Your task to perform on an android device: find which apps use the phone's location Image 0: 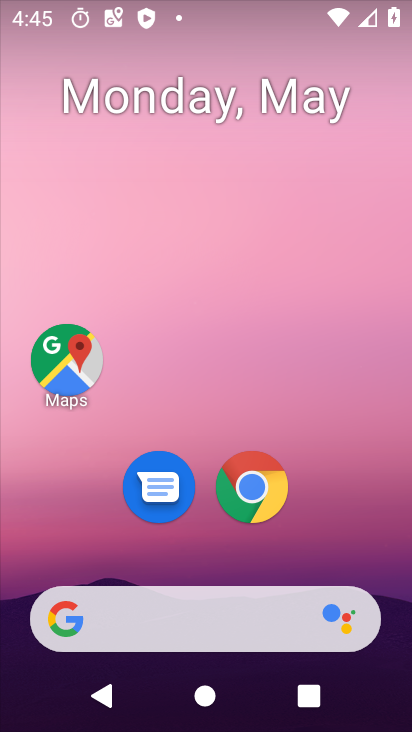
Step 0: drag from (266, 579) to (318, 158)
Your task to perform on an android device: find which apps use the phone's location Image 1: 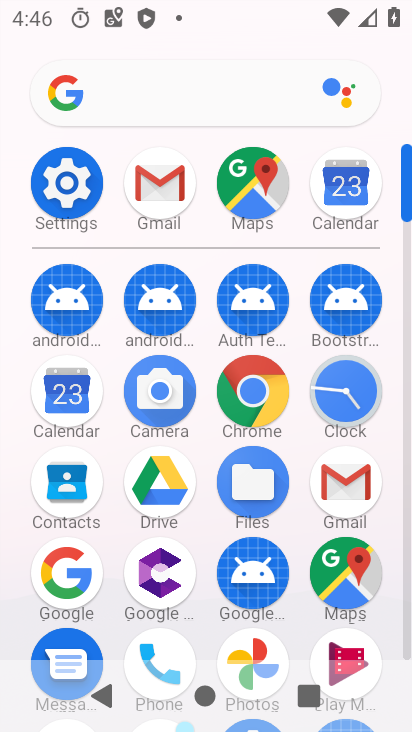
Step 1: click (62, 196)
Your task to perform on an android device: find which apps use the phone's location Image 2: 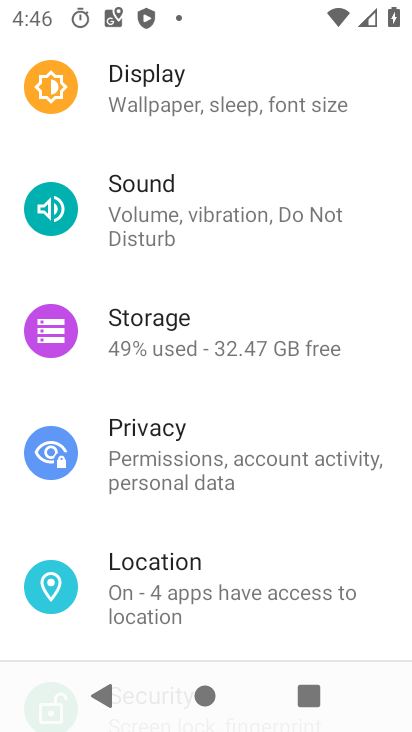
Step 2: click (58, 184)
Your task to perform on an android device: find which apps use the phone's location Image 3: 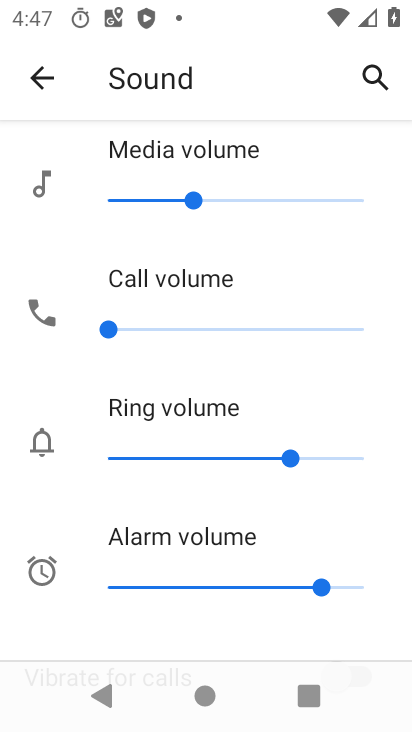
Step 3: click (37, 85)
Your task to perform on an android device: find which apps use the phone's location Image 4: 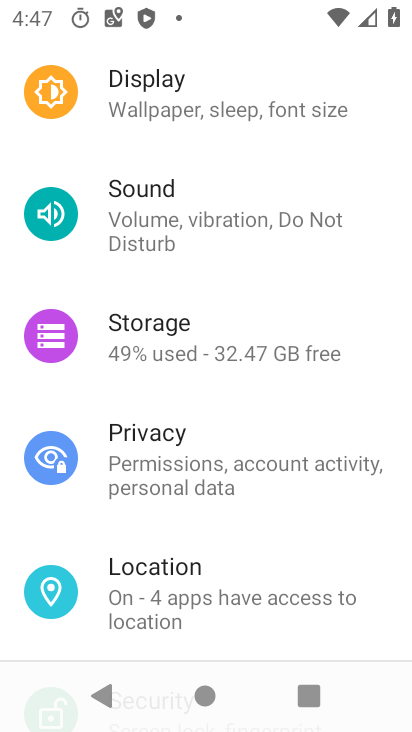
Step 4: click (166, 573)
Your task to perform on an android device: find which apps use the phone's location Image 5: 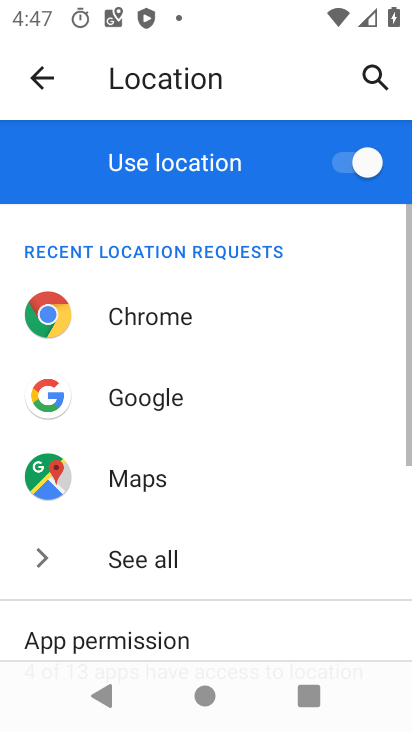
Step 5: drag from (138, 650) to (160, 375)
Your task to perform on an android device: find which apps use the phone's location Image 6: 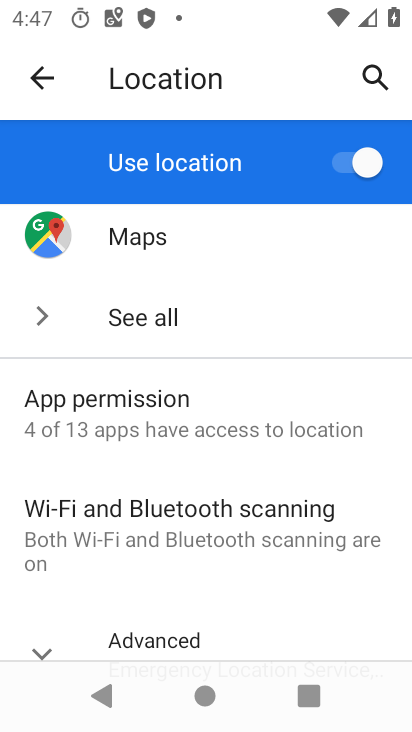
Step 6: click (130, 639)
Your task to perform on an android device: find which apps use the phone's location Image 7: 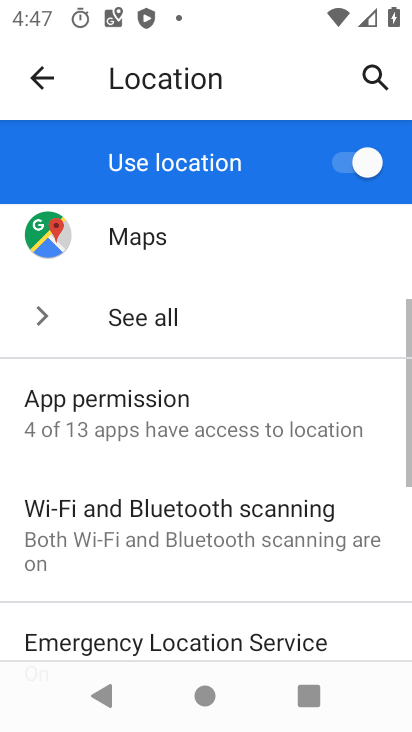
Step 7: click (175, 411)
Your task to perform on an android device: find which apps use the phone's location Image 8: 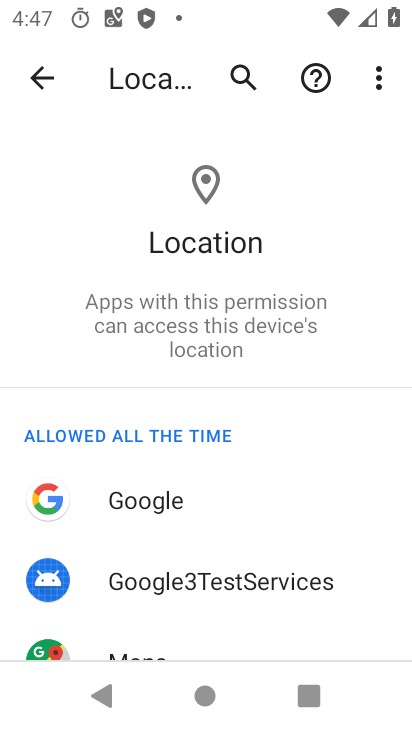
Step 8: task complete